Your task to perform on an android device: Find coffee shops on Maps Image 0: 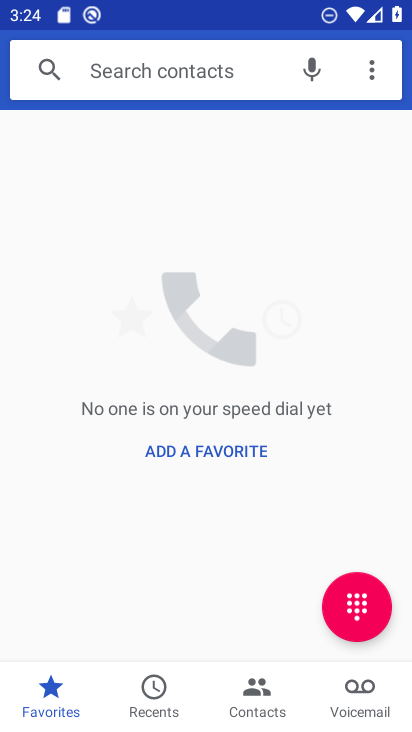
Step 0: press home button
Your task to perform on an android device: Find coffee shops on Maps Image 1: 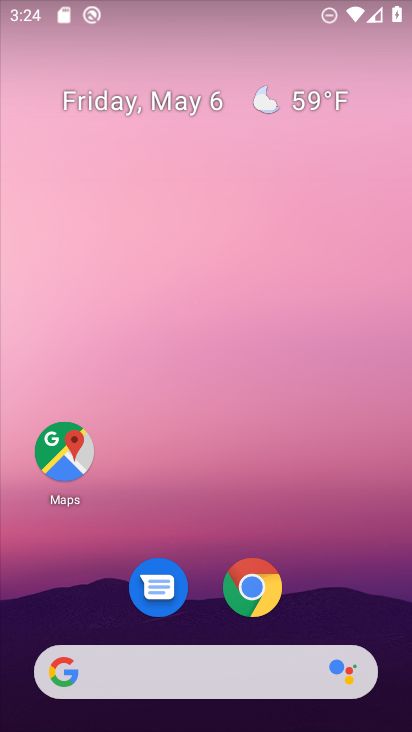
Step 1: click (61, 442)
Your task to perform on an android device: Find coffee shops on Maps Image 2: 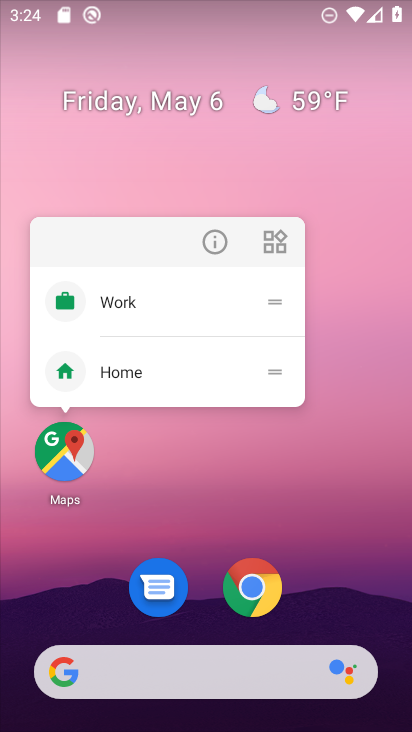
Step 2: click (60, 434)
Your task to perform on an android device: Find coffee shops on Maps Image 3: 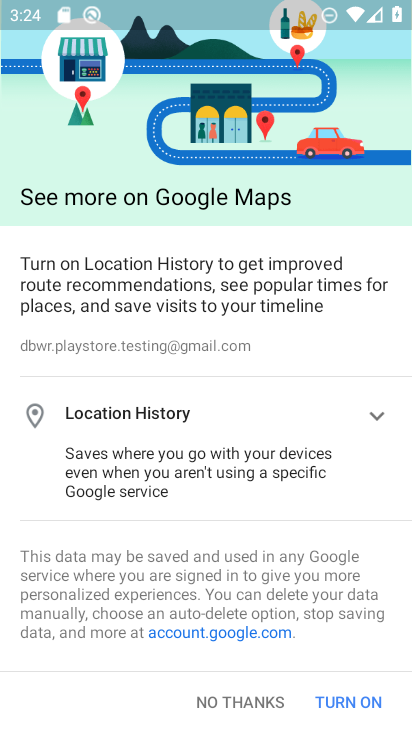
Step 3: press back button
Your task to perform on an android device: Find coffee shops on Maps Image 4: 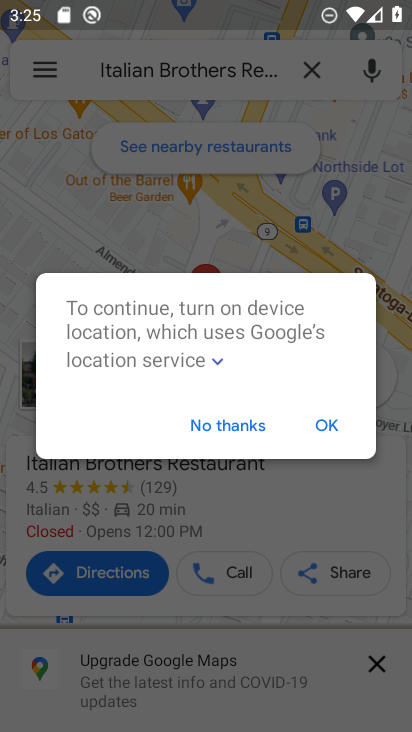
Step 4: click (253, 436)
Your task to perform on an android device: Find coffee shops on Maps Image 5: 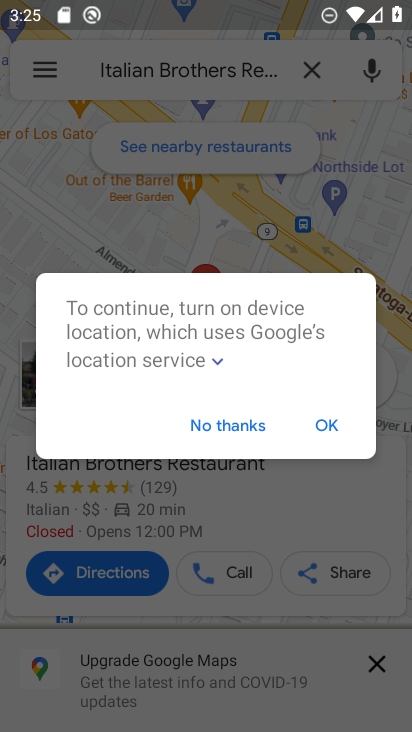
Step 5: click (315, 73)
Your task to perform on an android device: Find coffee shops on Maps Image 6: 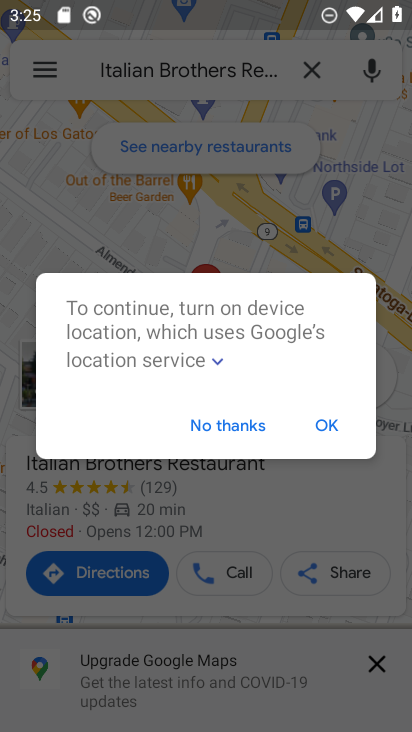
Step 6: click (216, 443)
Your task to perform on an android device: Find coffee shops on Maps Image 7: 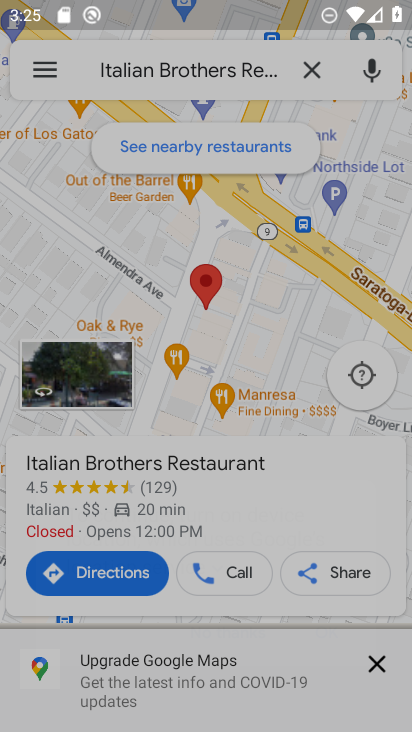
Step 7: click (215, 427)
Your task to perform on an android device: Find coffee shops on Maps Image 8: 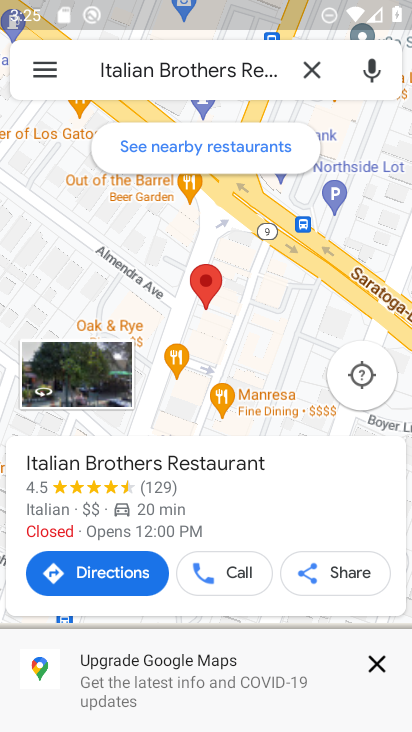
Step 8: click (305, 80)
Your task to perform on an android device: Find coffee shops on Maps Image 9: 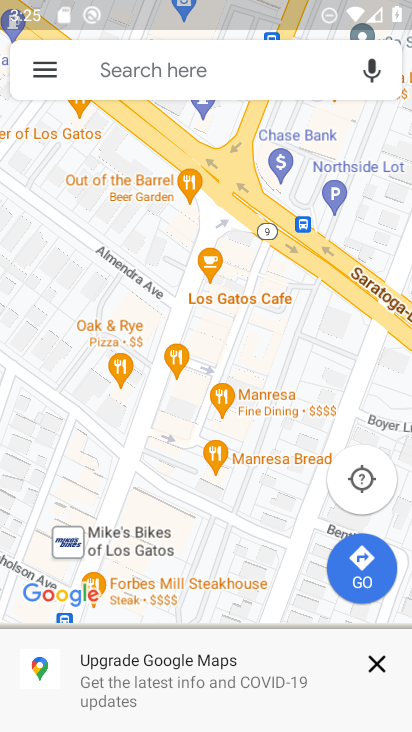
Step 9: click (264, 84)
Your task to perform on an android device: Find coffee shops on Maps Image 10: 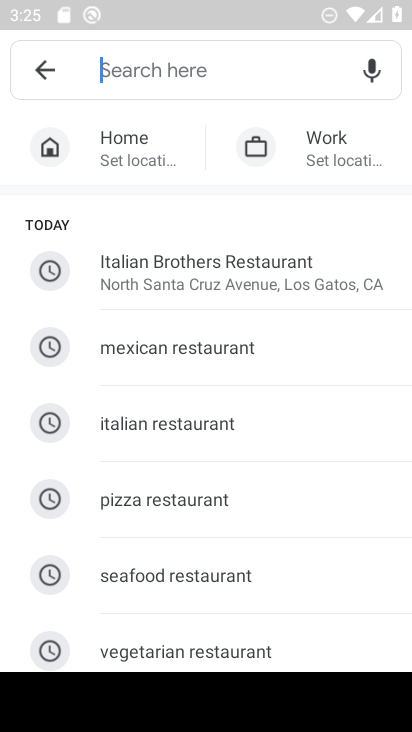
Step 10: type "coffee shops"
Your task to perform on an android device: Find coffee shops on Maps Image 11: 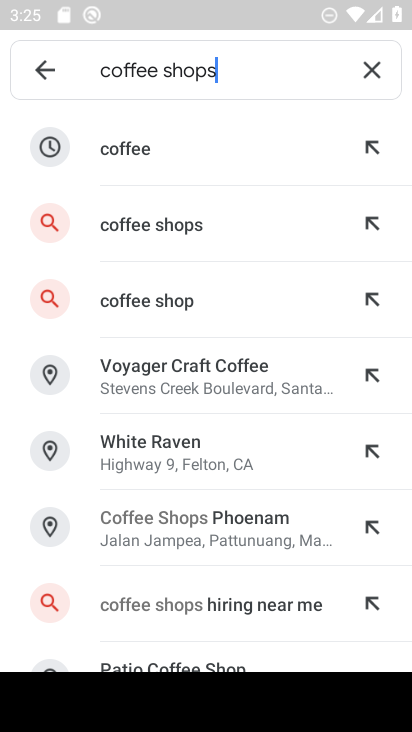
Step 11: click (122, 241)
Your task to perform on an android device: Find coffee shops on Maps Image 12: 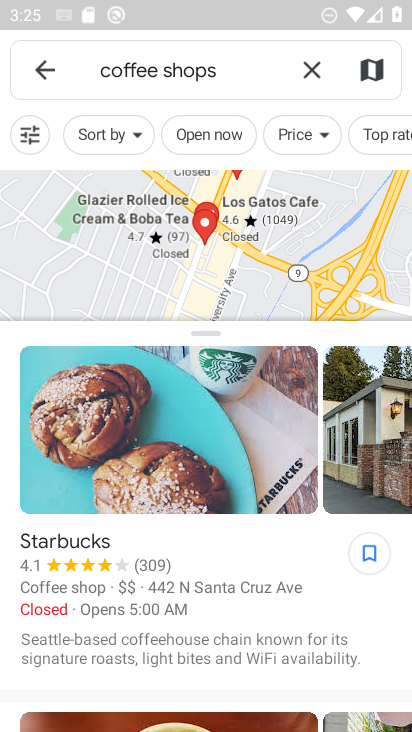
Step 12: task complete